Your task to perform on an android device: move an email to a new category in the gmail app Image 0: 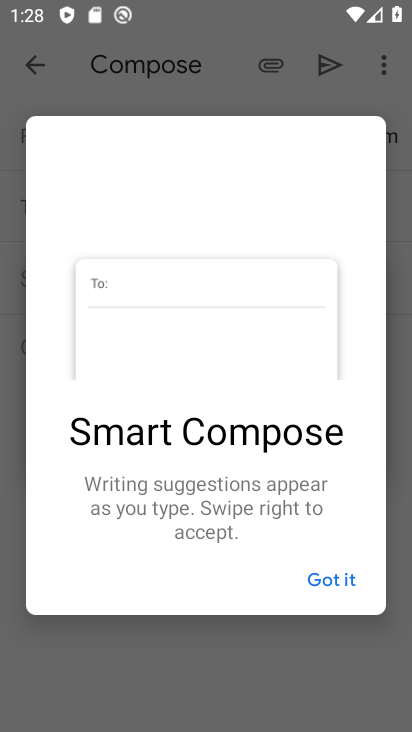
Step 0: press home button
Your task to perform on an android device: move an email to a new category in the gmail app Image 1: 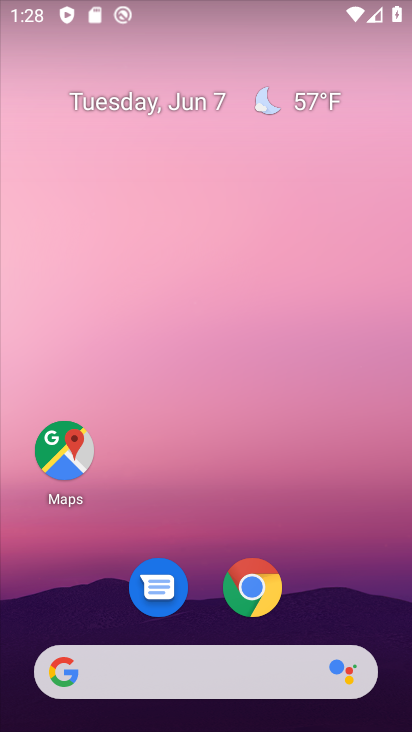
Step 1: drag from (102, 533) to (171, 184)
Your task to perform on an android device: move an email to a new category in the gmail app Image 2: 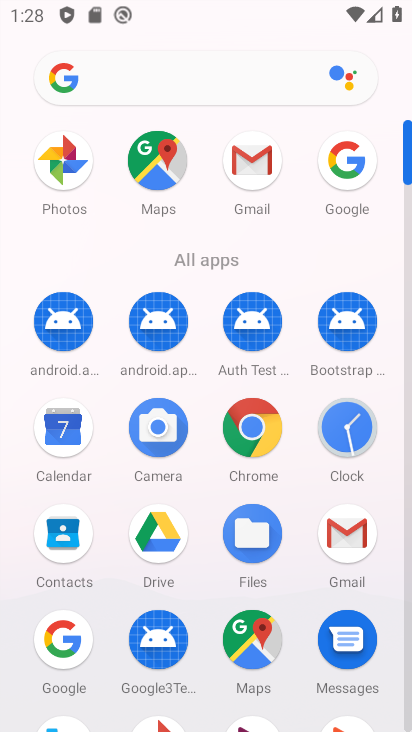
Step 2: click (364, 530)
Your task to perform on an android device: move an email to a new category in the gmail app Image 3: 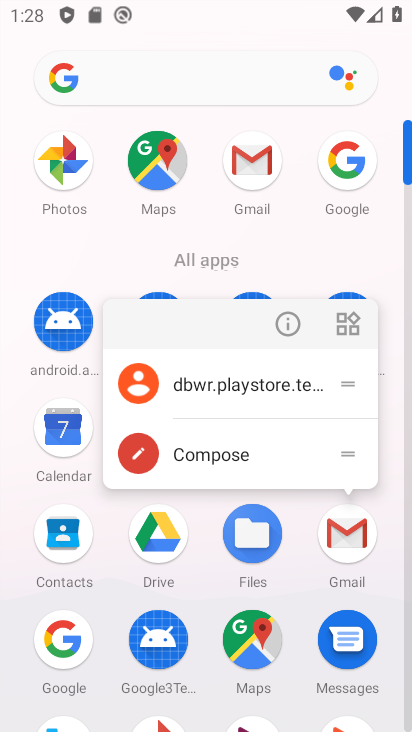
Step 3: click (363, 531)
Your task to perform on an android device: move an email to a new category in the gmail app Image 4: 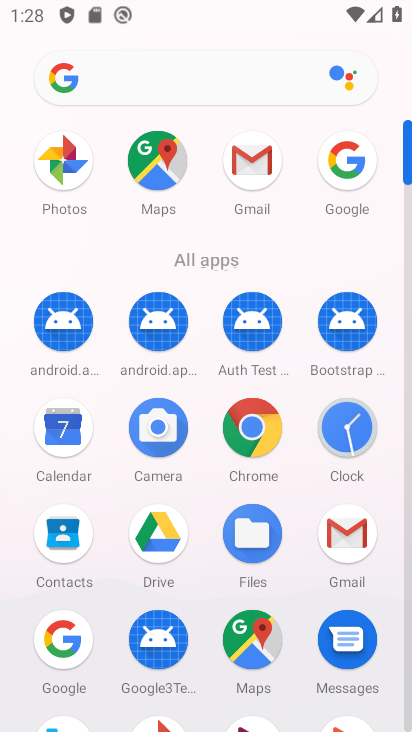
Step 4: click (344, 558)
Your task to perform on an android device: move an email to a new category in the gmail app Image 5: 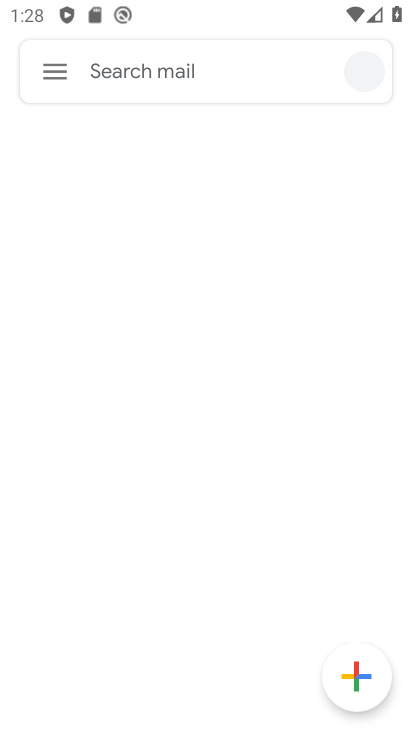
Step 5: click (51, 80)
Your task to perform on an android device: move an email to a new category in the gmail app Image 6: 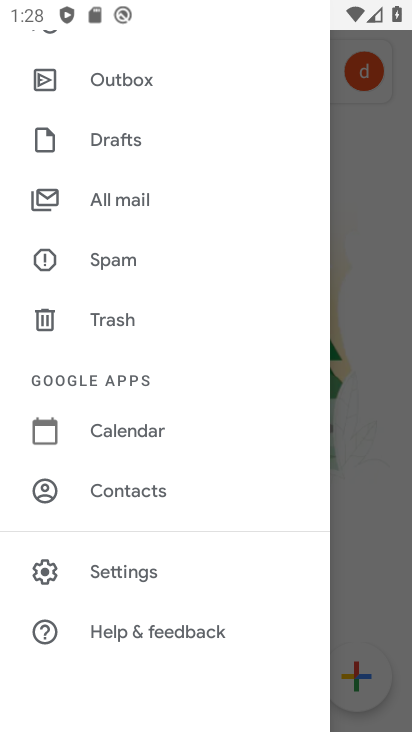
Step 6: click (170, 209)
Your task to perform on an android device: move an email to a new category in the gmail app Image 7: 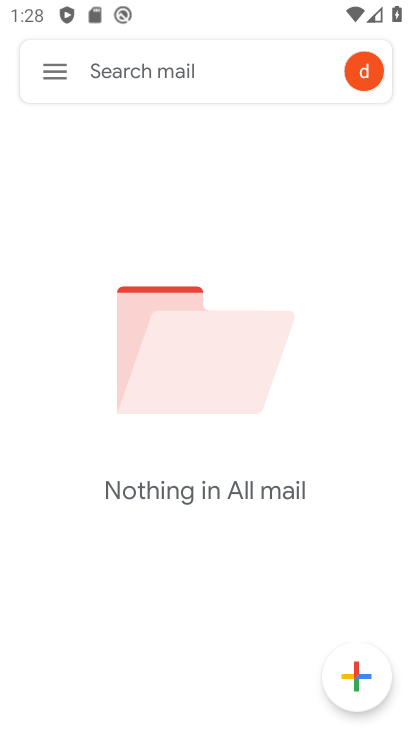
Step 7: task complete